Your task to perform on an android device: Toggle the flashlight Image 0: 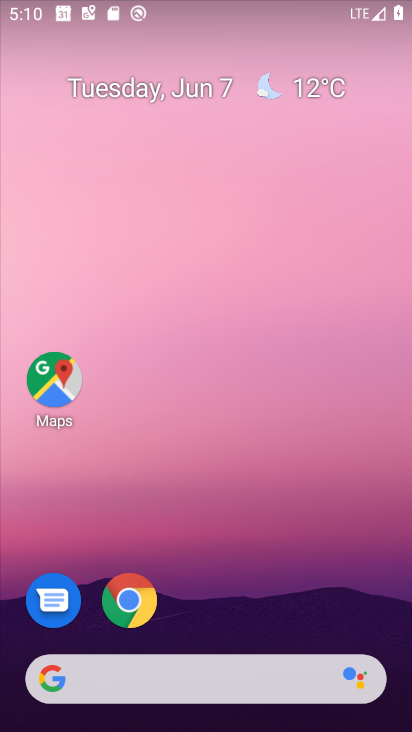
Step 0: drag from (289, 640) to (243, 265)
Your task to perform on an android device: Toggle the flashlight Image 1: 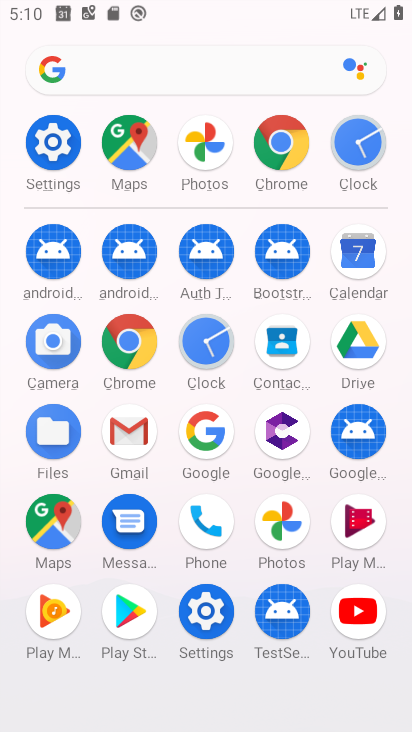
Step 1: click (58, 146)
Your task to perform on an android device: Toggle the flashlight Image 2: 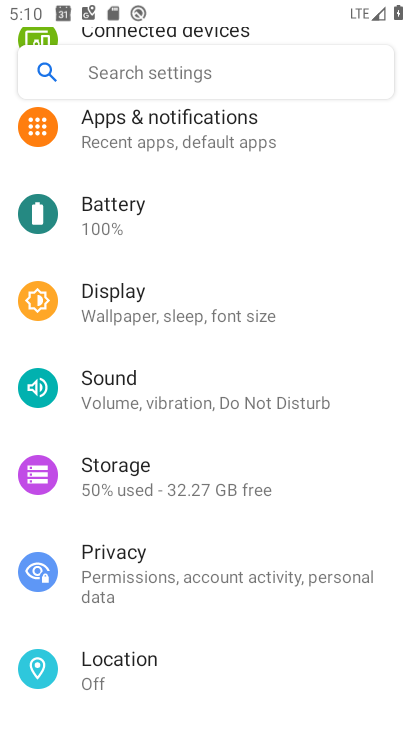
Step 2: click (165, 314)
Your task to perform on an android device: Toggle the flashlight Image 3: 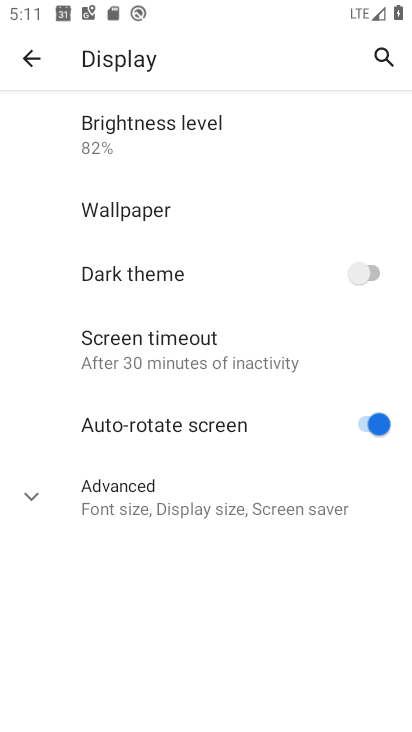
Step 3: task complete